Your task to perform on an android device: Open my contact list Image 0: 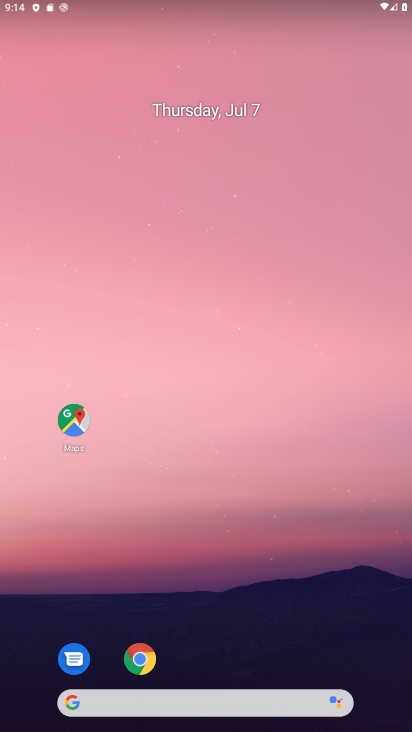
Step 0: drag from (238, 589) to (160, 74)
Your task to perform on an android device: Open my contact list Image 1: 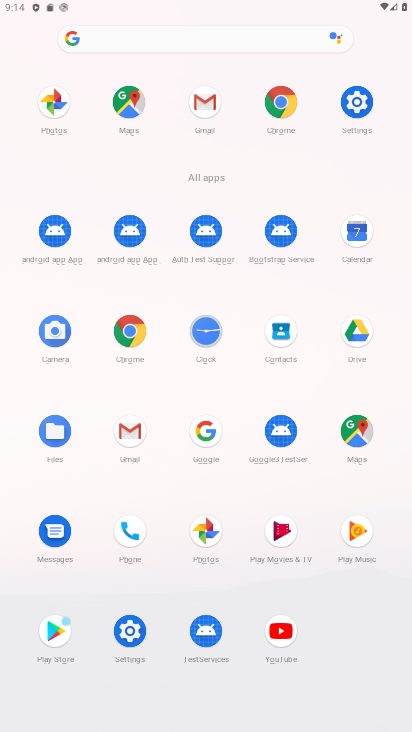
Step 1: click (278, 334)
Your task to perform on an android device: Open my contact list Image 2: 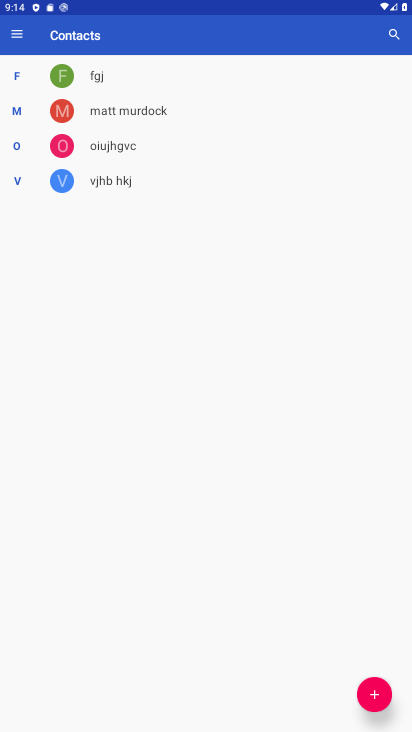
Step 2: task complete